Your task to perform on an android device: Open Google Chrome and open the bookmarks view Image 0: 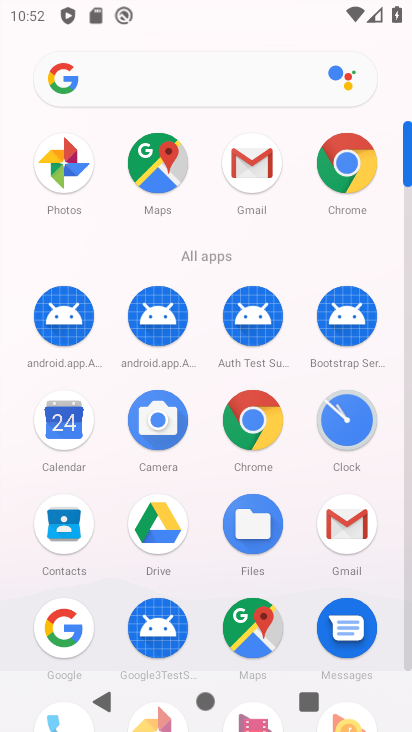
Step 0: press home button
Your task to perform on an android device: Open Google Chrome and open the bookmarks view Image 1: 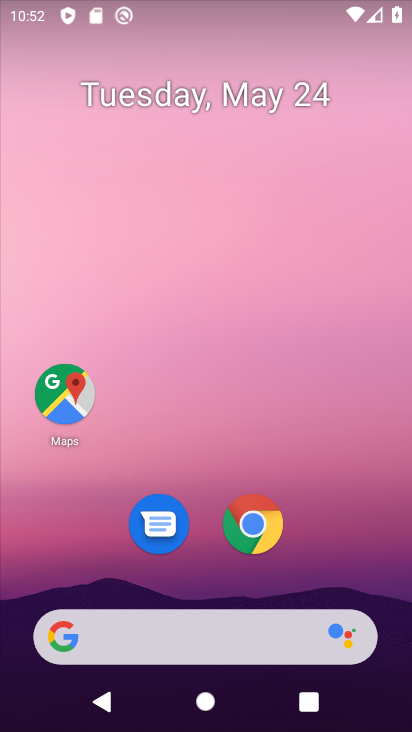
Step 1: click (241, 523)
Your task to perform on an android device: Open Google Chrome and open the bookmarks view Image 2: 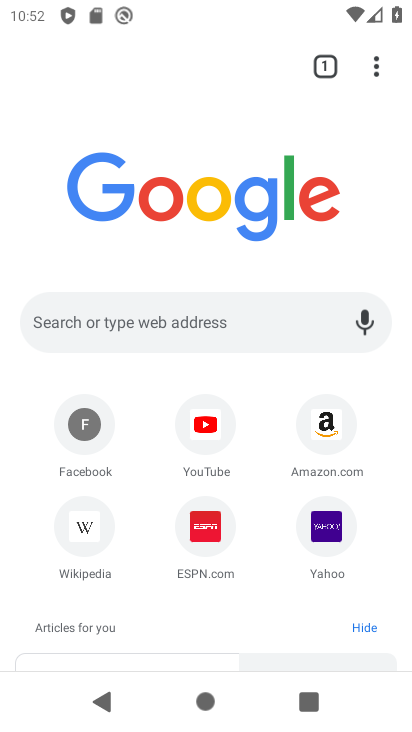
Step 2: click (377, 61)
Your task to perform on an android device: Open Google Chrome and open the bookmarks view Image 3: 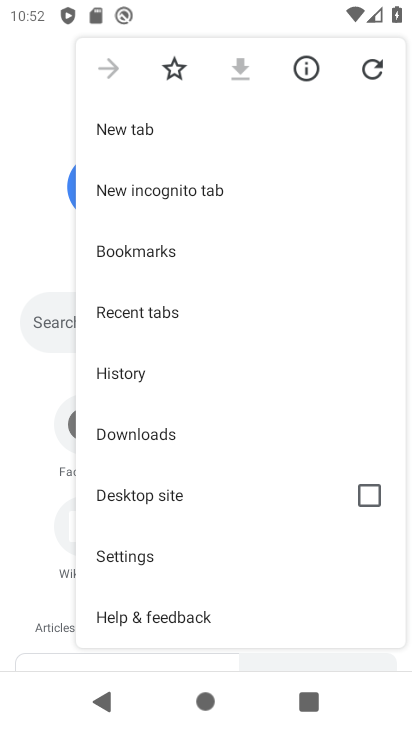
Step 3: click (191, 245)
Your task to perform on an android device: Open Google Chrome and open the bookmarks view Image 4: 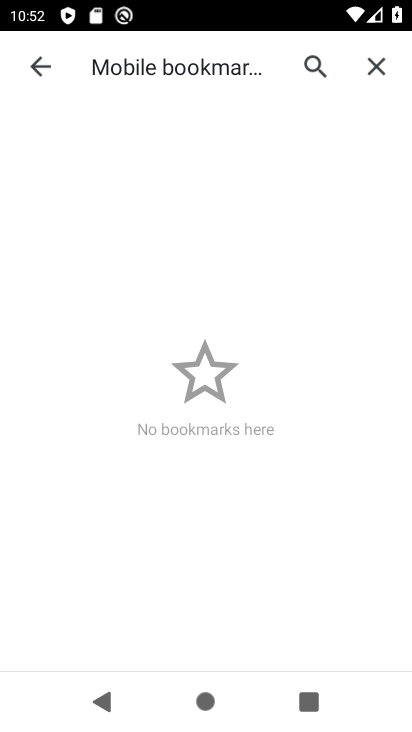
Step 4: task complete